Your task to perform on an android device: open app "Move to iOS" Image 0: 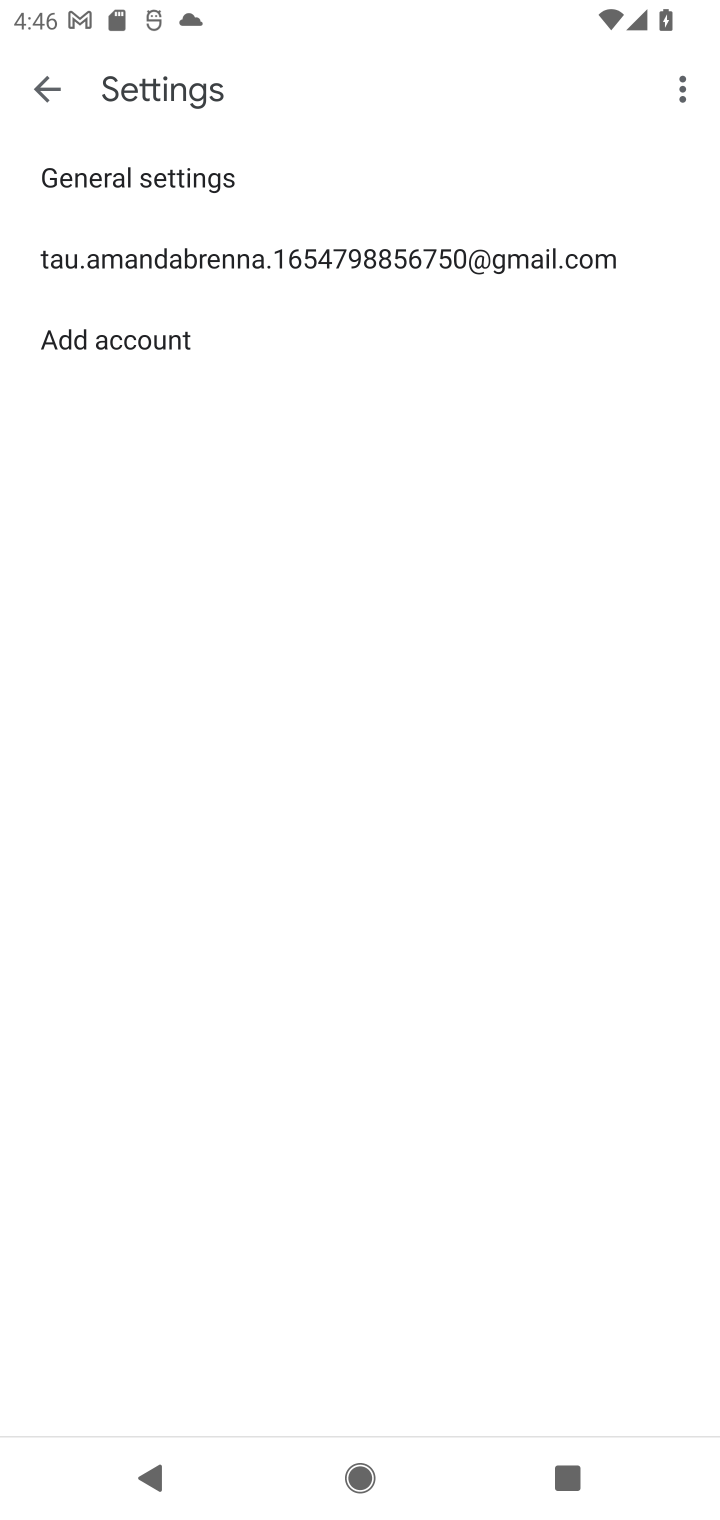
Step 0: press home button
Your task to perform on an android device: open app "Move to iOS" Image 1: 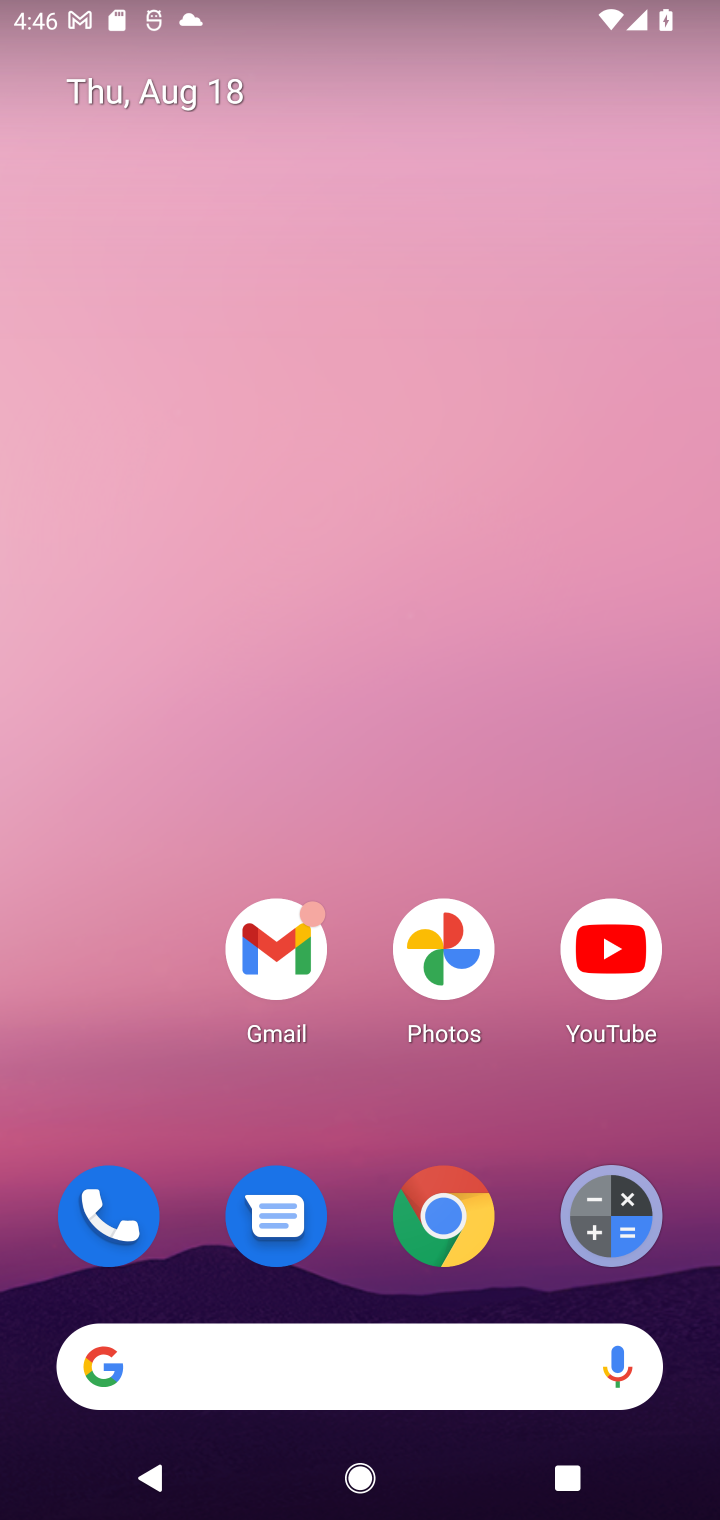
Step 1: drag from (517, 1227) to (481, 232)
Your task to perform on an android device: open app "Move to iOS" Image 2: 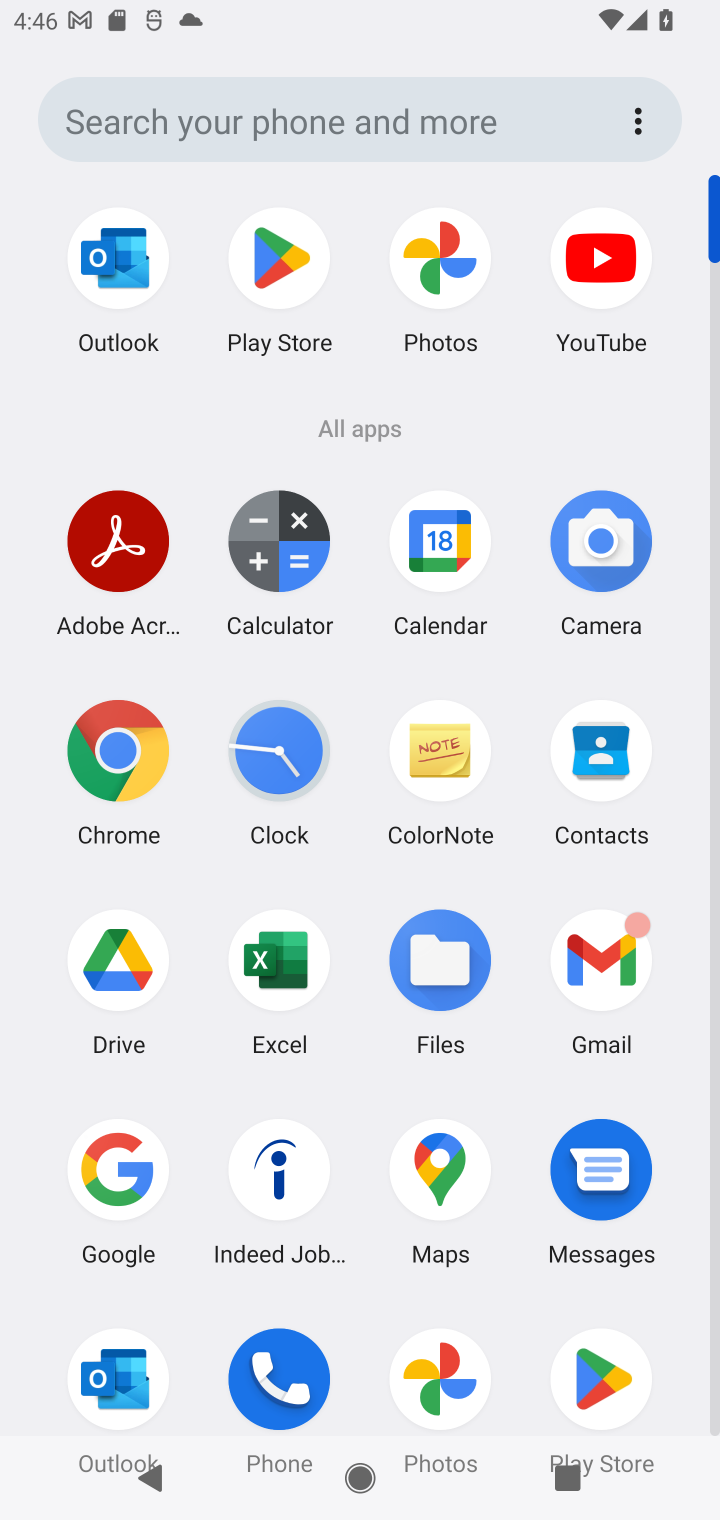
Step 2: drag from (691, 1371) to (704, 993)
Your task to perform on an android device: open app "Move to iOS" Image 3: 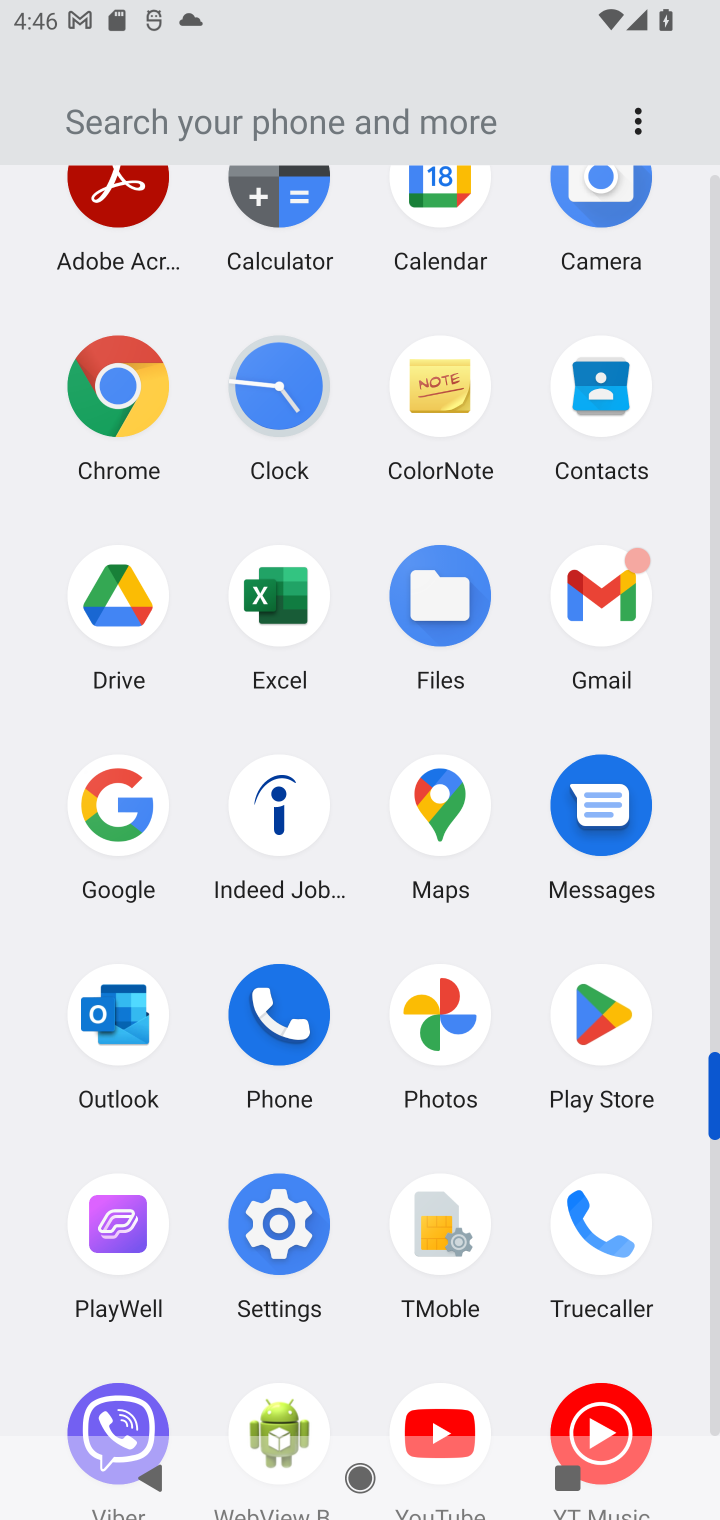
Step 3: click (606, 1013)
Your task to perform on an android device: open app "Move to iOS" Image 4: 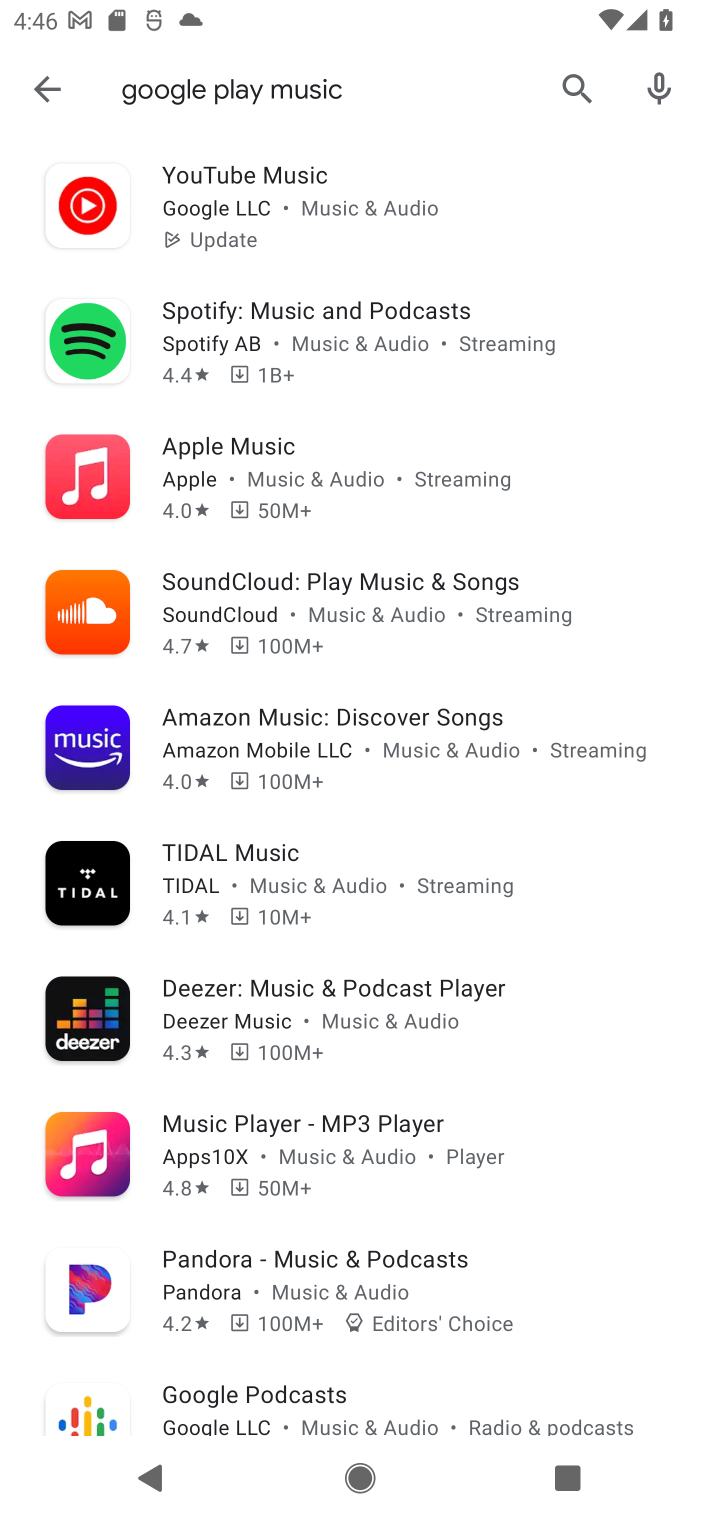
Step 4: click (569, 75)
Your task to perform on an android device: open app "Move to iOS" Image 5: 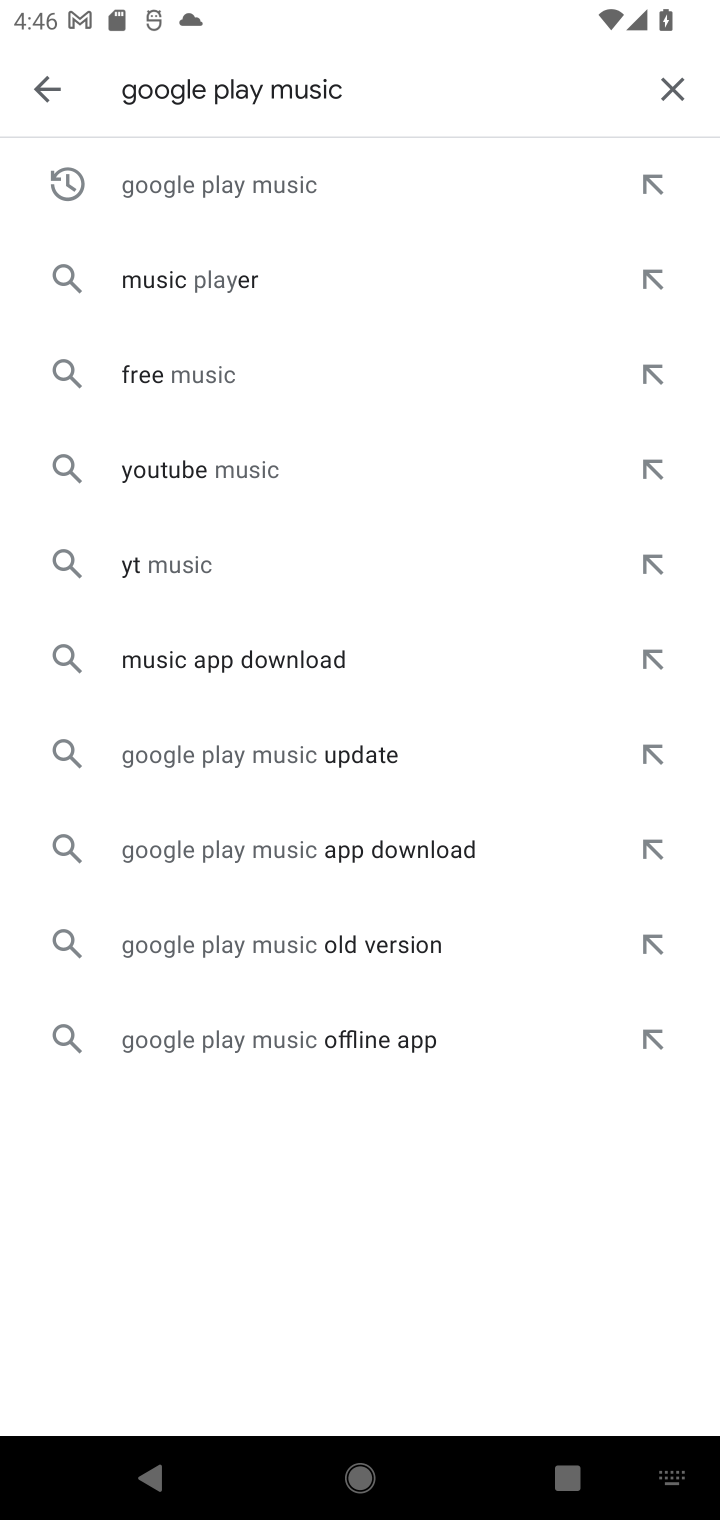
Step 5: click (669, 92)
Your task to perform on an android device: open app "Move to iOS" Image 6: 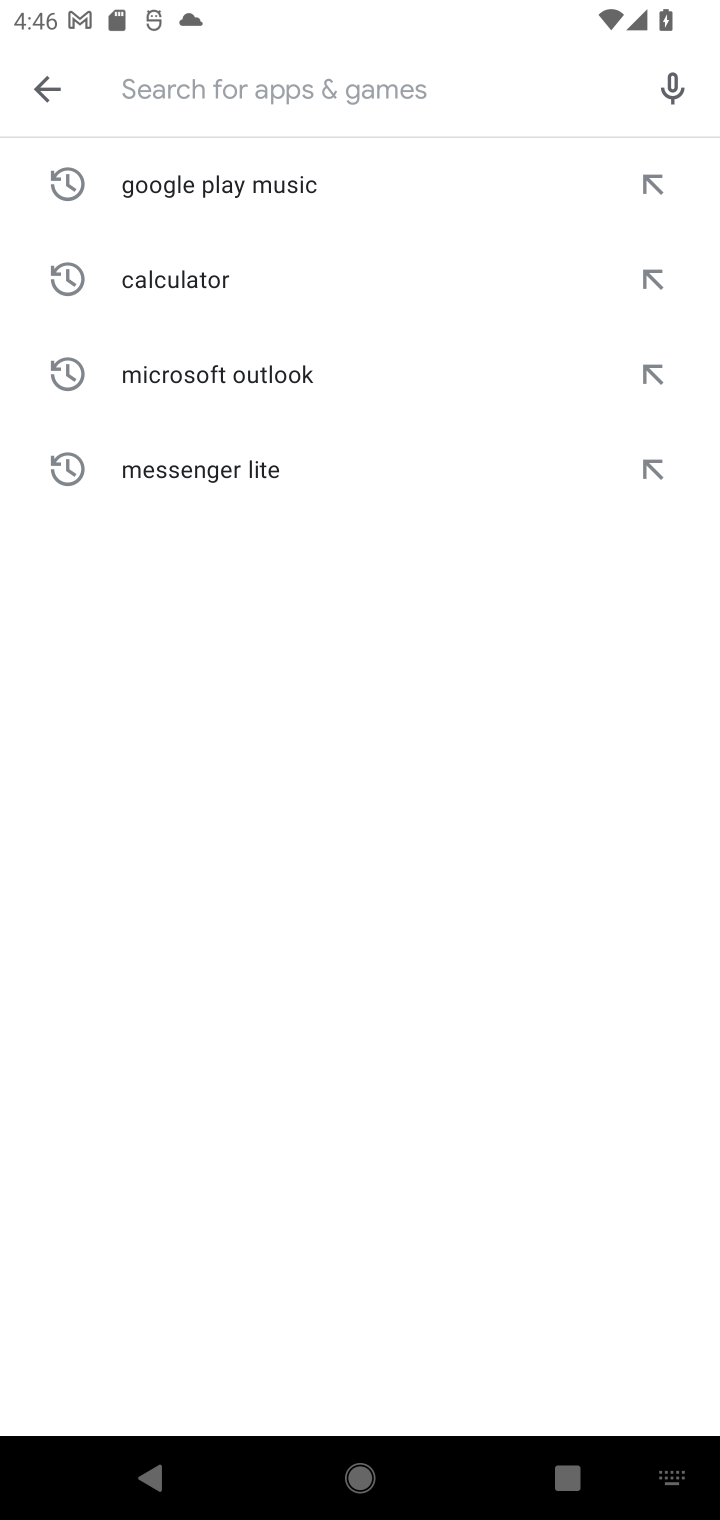
Step 6: type "Move to iOS"
Your task to perform on an android device: open app "Move to iOS" Image 7: 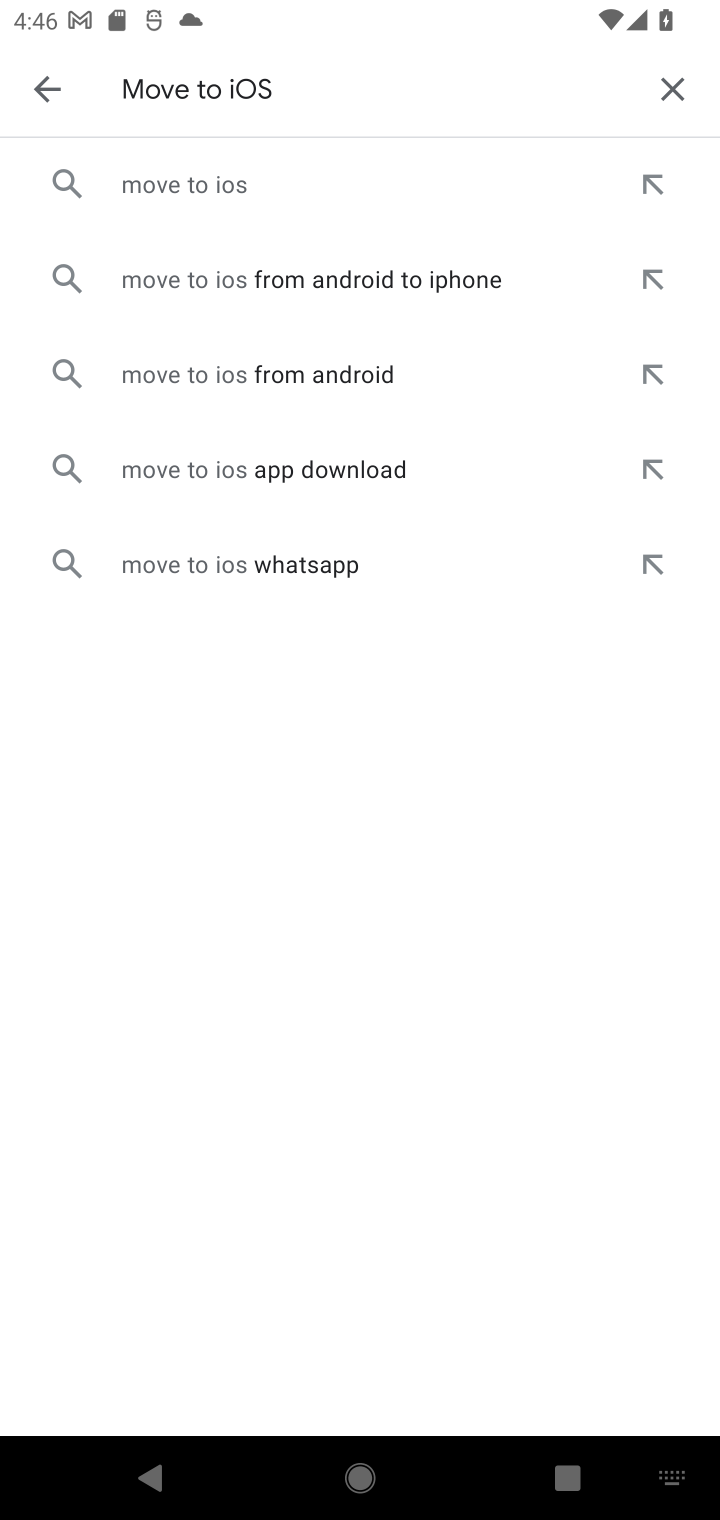
Step 7: click (196, 186)
Your task to perform on an android device: open app "Move to iOS" Image 8: 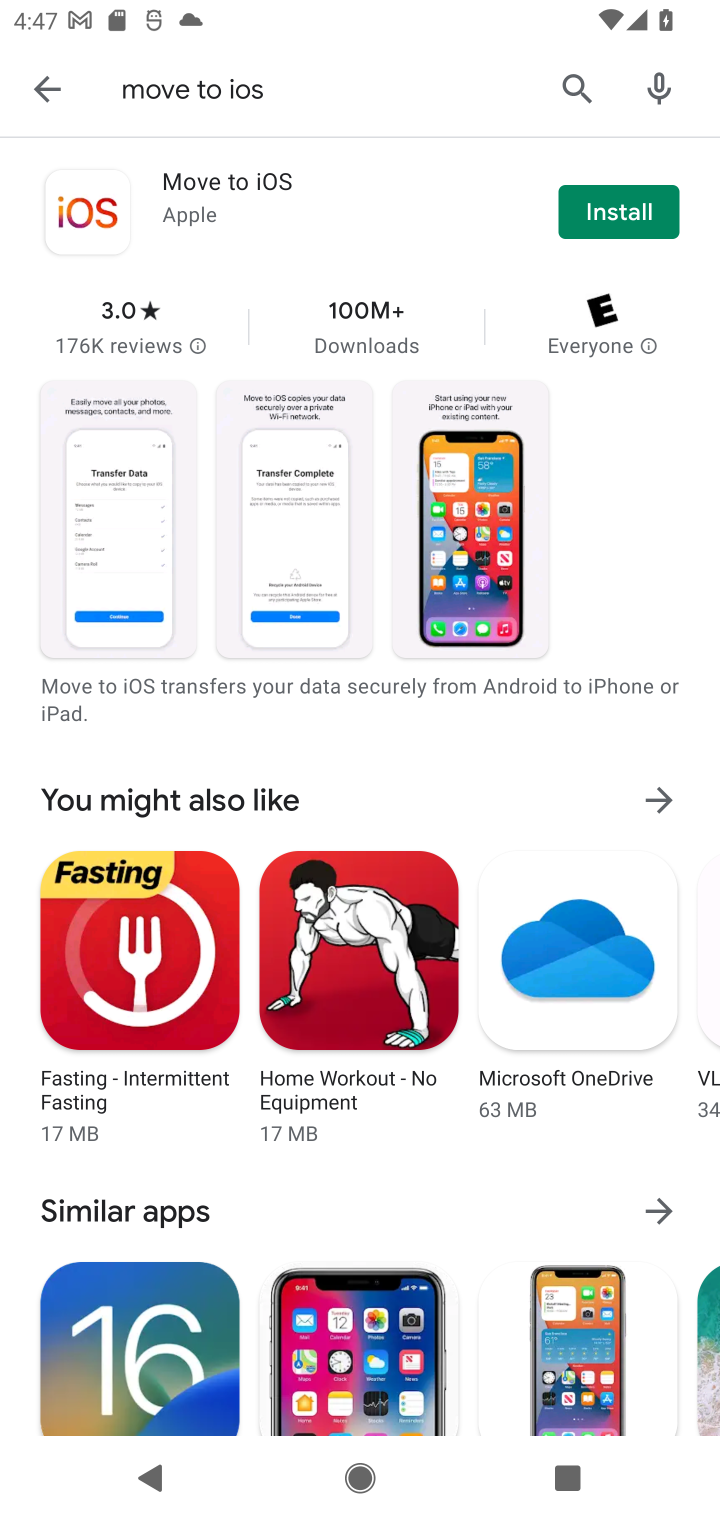
Step 8: task complete